Your task to perform on an android device: Go to Wikipedia Image 0: 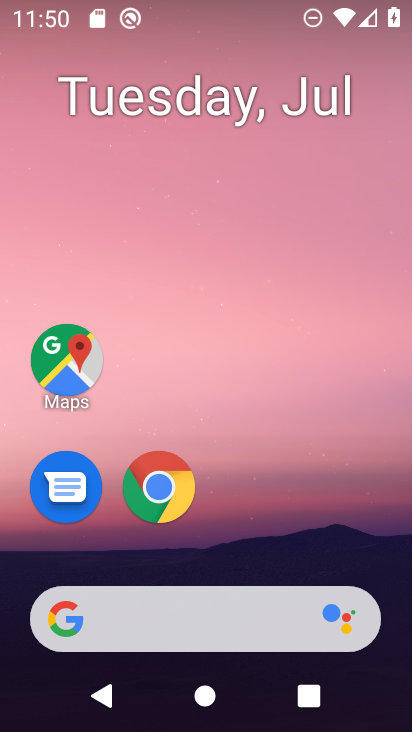
Step 0: click (157, 476)
Your task to perform on an android device: Go to Wikipedia Image 1: 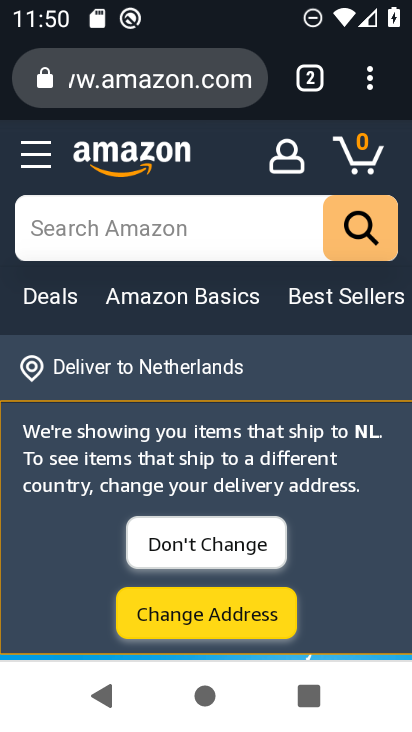
Step 1: click (319, 86)
Your task to perform on an android device: Go to Wikipedia Image 2: 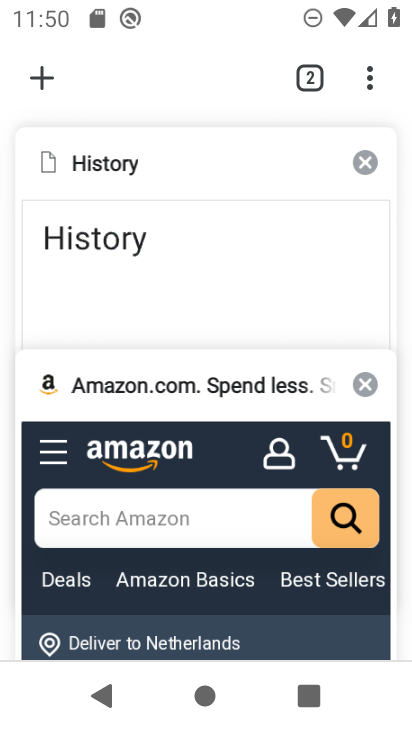
Step 2: click (40, 74)
Your task to perform on an android device: Go to Wikipedia Image 3: 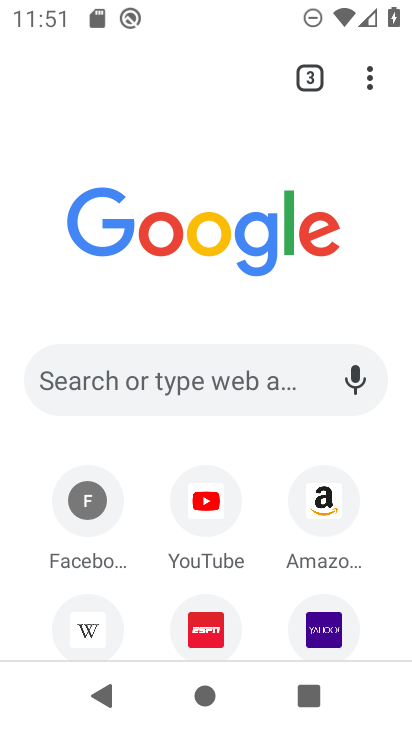
Step 3: click (97, 626)
Your task to perform on an android device: Go to Wikipedia Image 4: 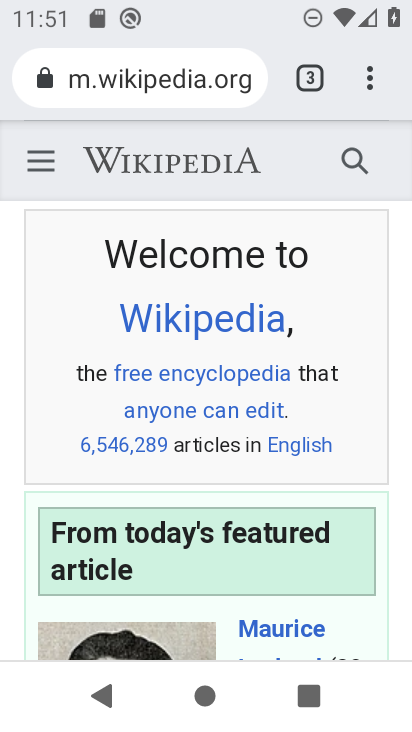
Step 4: task complete